Your task to perform on an android device: Search for bose soundlink mini on amazon, select the first entry, add it to the cart, then select checkout. Image 0: 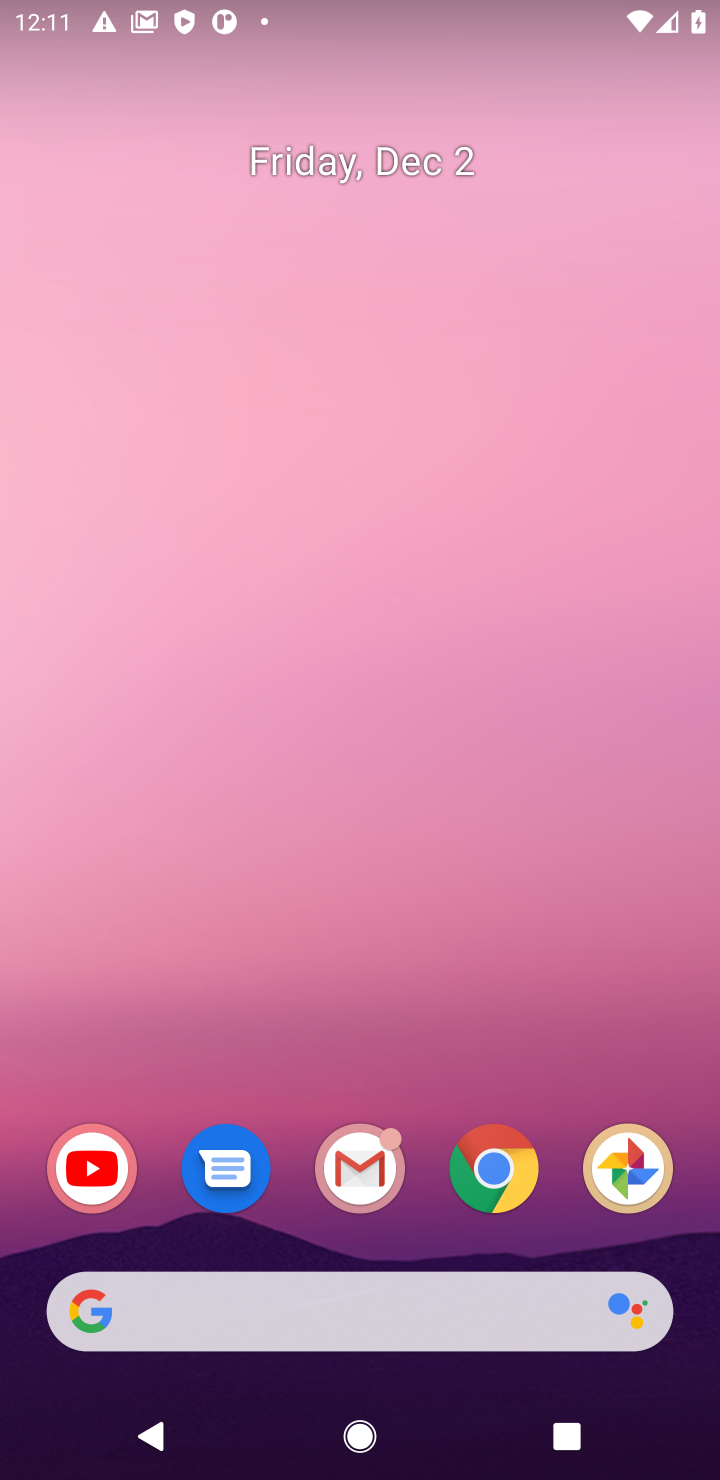
Step 0: click (496, 1177)
Your task to perform on an android device: Search for bose soundlink mini on amazon, select the first entry, add it to the cart, then select checkout. Image 1: 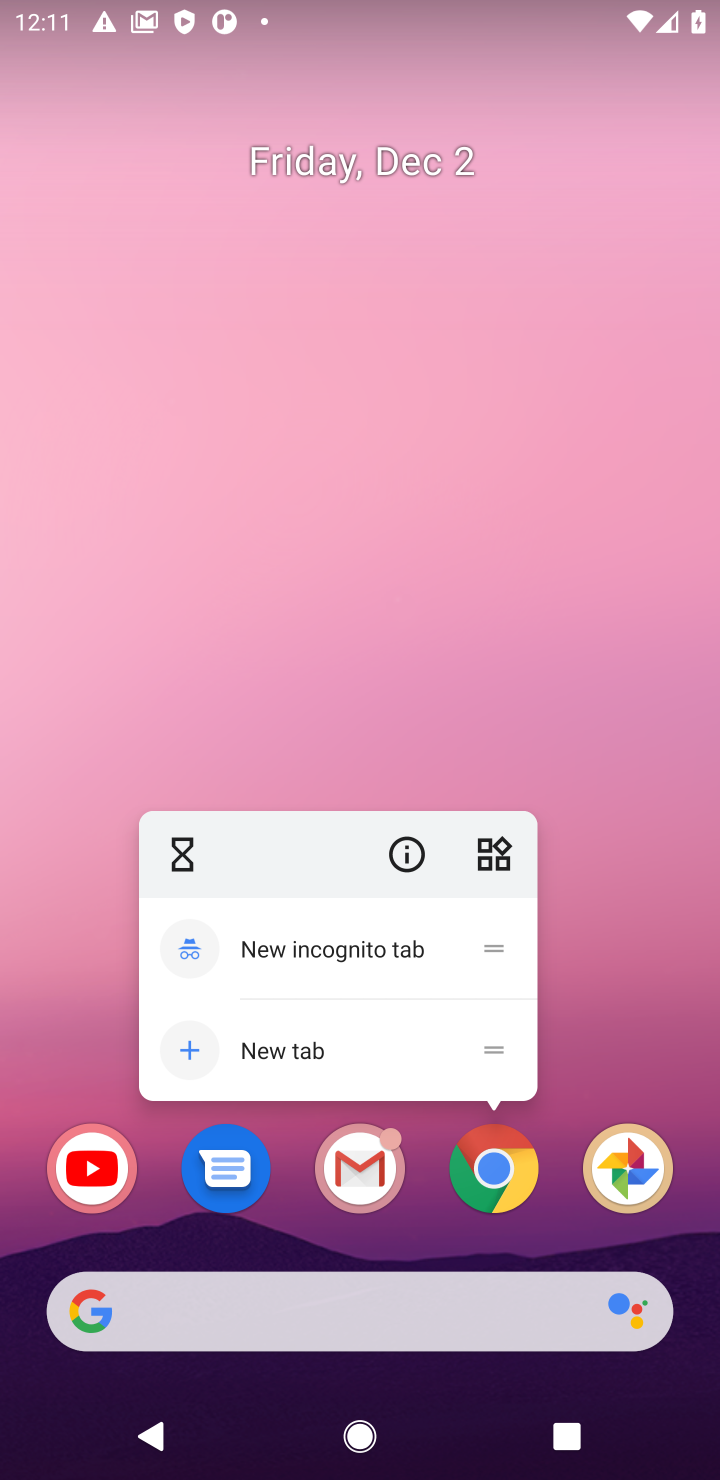
Step 1: click (498, 1179)
Your task to perform on an android device: Search for bose soundlink mini on amazon, select the first entry, add it to the cart, then select checkout. Image 2: 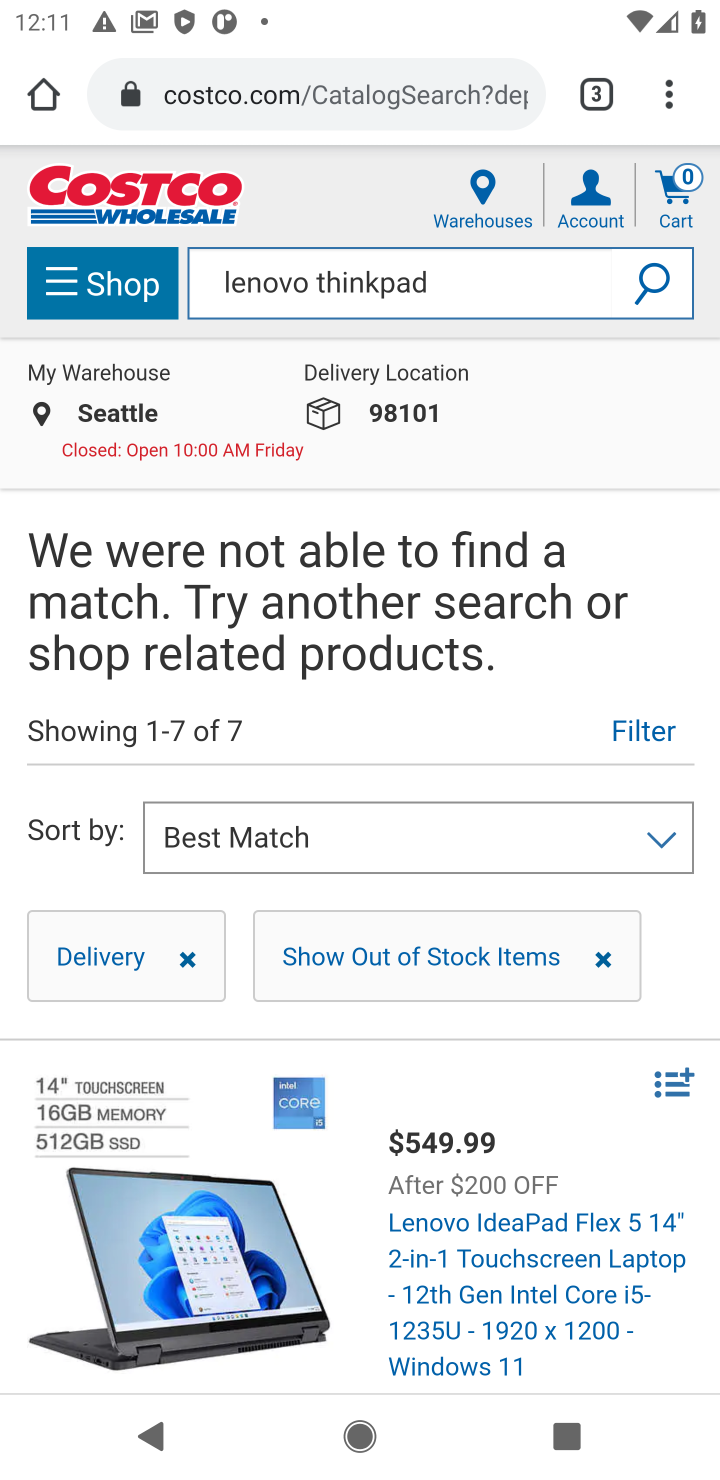
Step 2: click (343, 91)
Your task to perform on an android device: Search for bose soundlink mini on amazon, select the first entry, add it to the cart, then select checkout. Image 3: 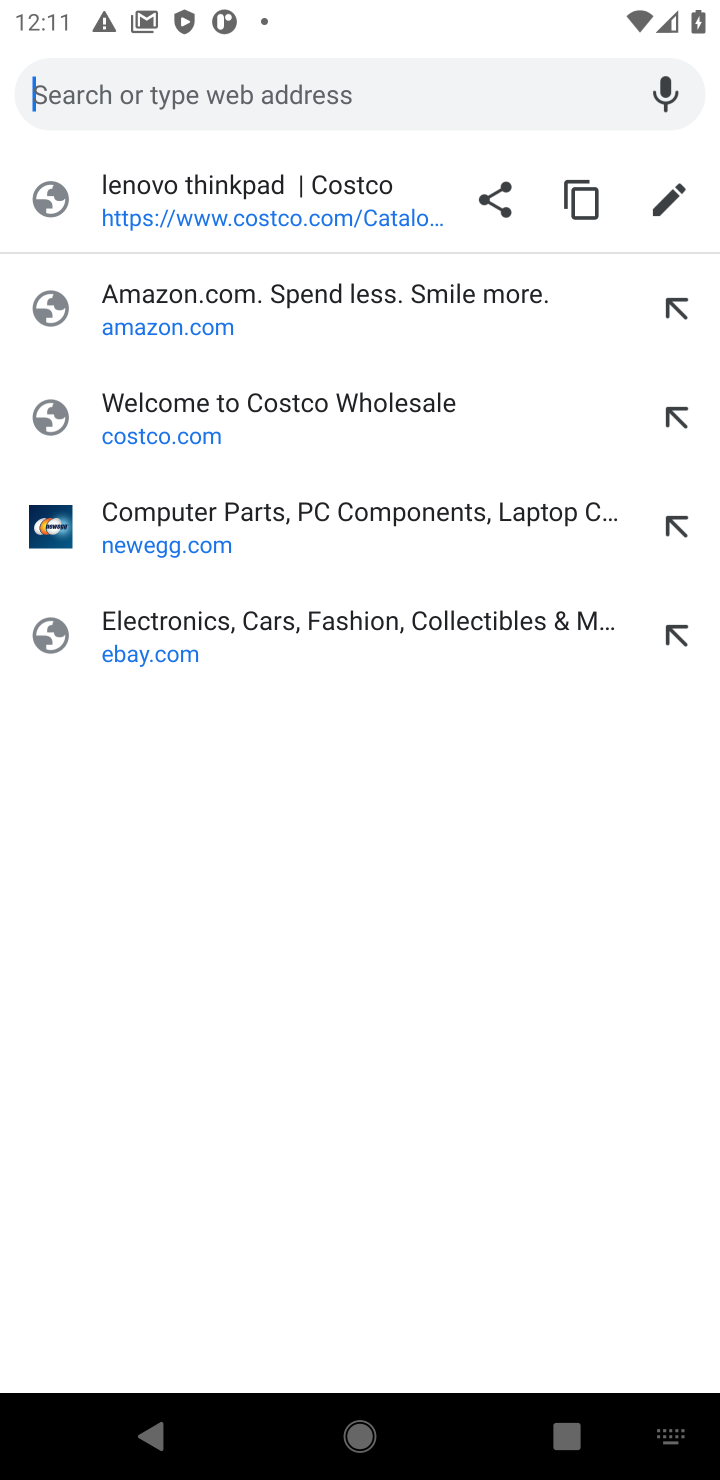
Step 3: click (138, 311)
Your task to perform on an android device: Search for bose soundlink mini on amazon, select the first entry, add it to the cart, then select checkout. Image 4: 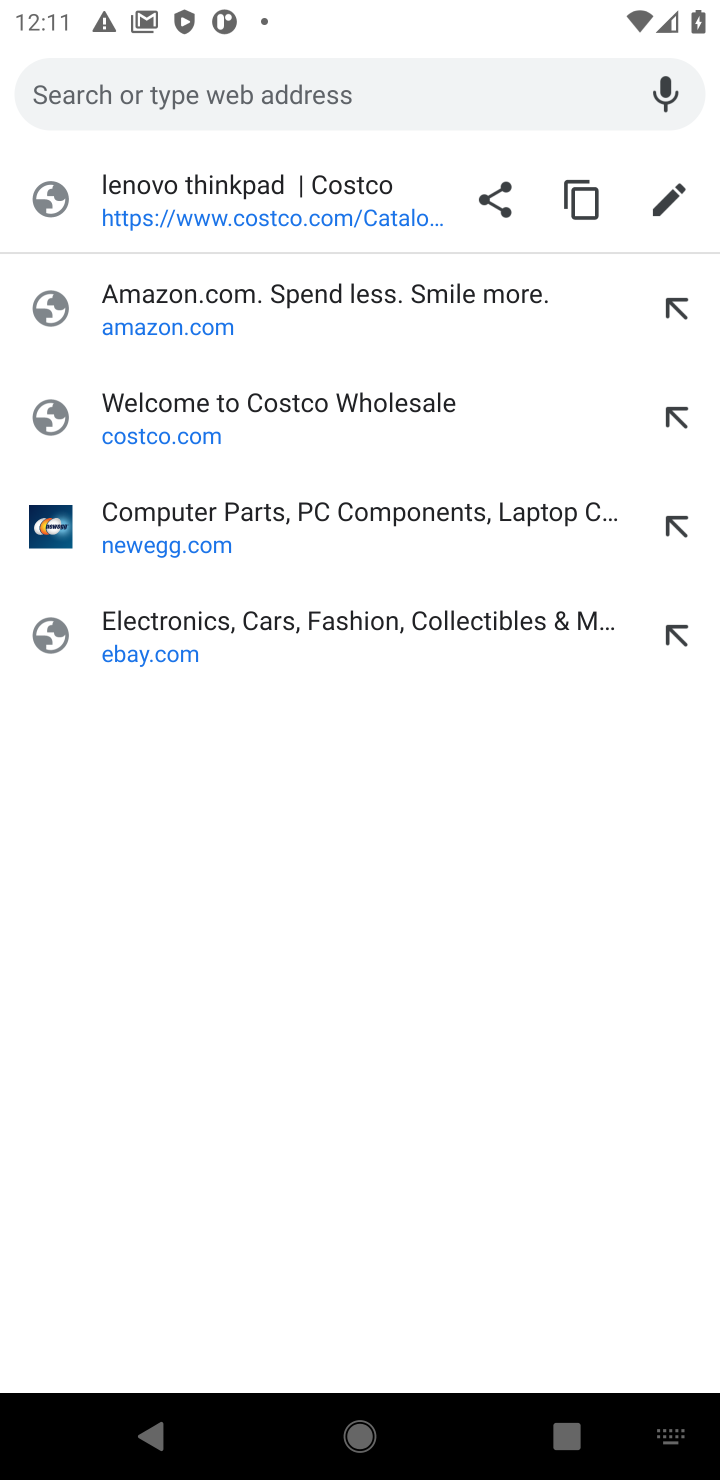
Step 4: click (135, 290)
Your task to perform on an android device: Search for bose soundlink mini on amazon, select the first entry, add it to the cart, then select checkout. Image 5: 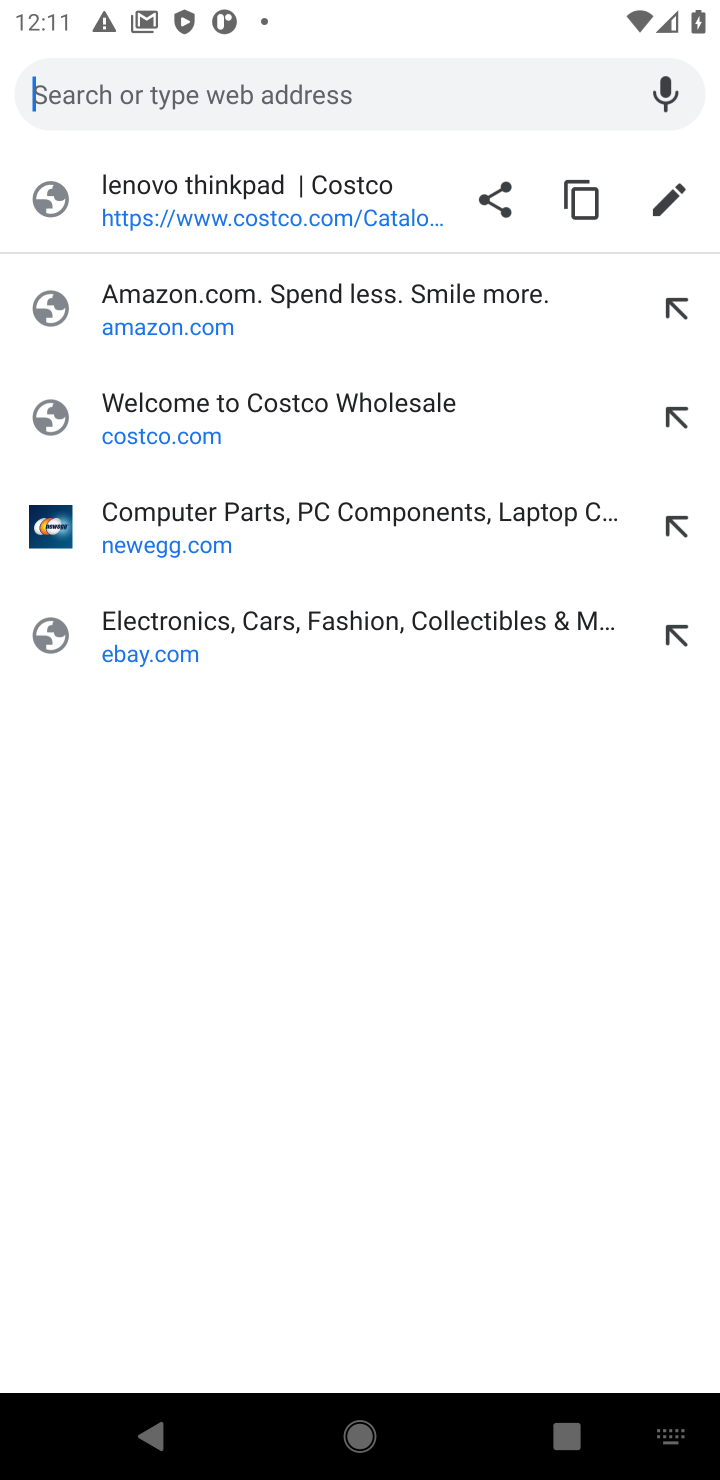
Step 5: click (138, 317)
Your task to perform on an android device: Search for bose soundlink mini on amazon, select the first entry, add it to the cart, then select checkout. Image 6: 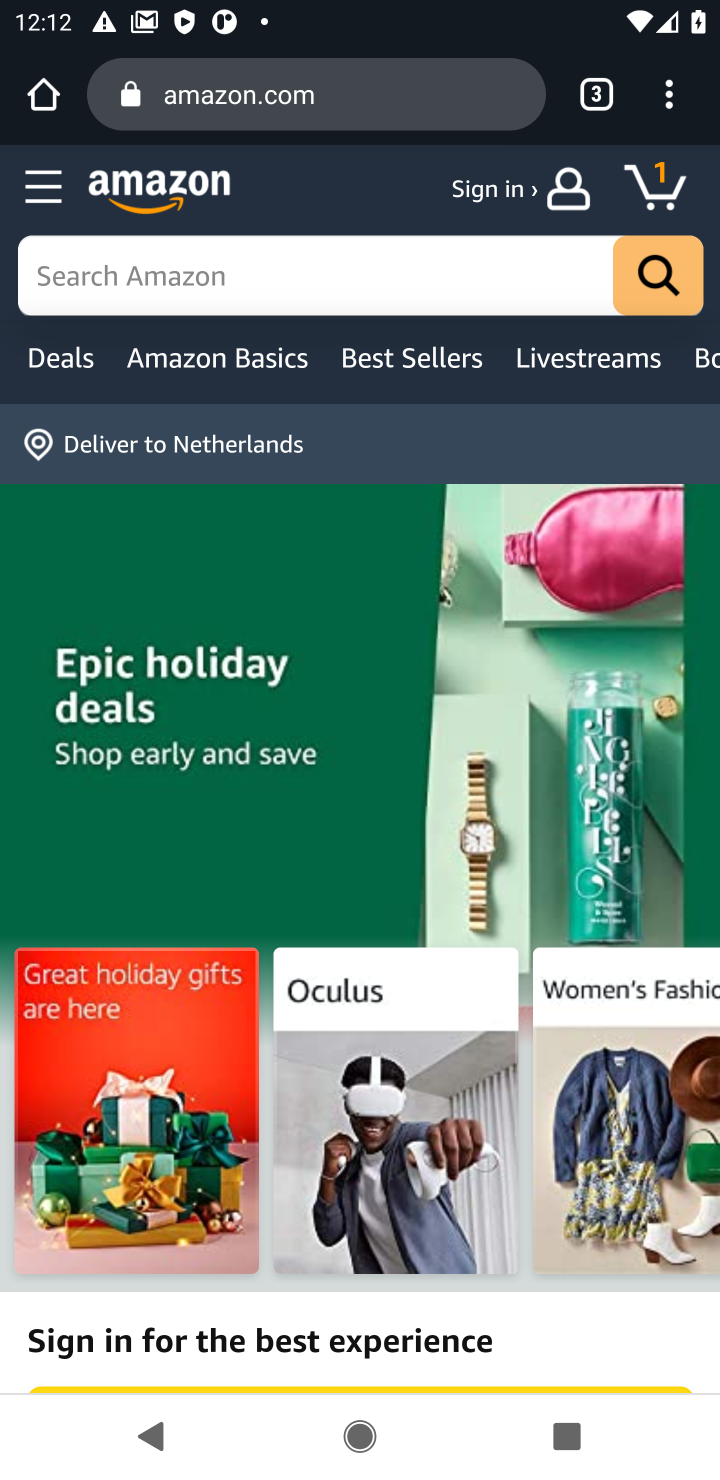
Step 6: click (171, 291)
Your task to perform on an android device: Search for bose soundlink mini on amazon, select the first entry, add it to the cart, then select checkout. Image 7: 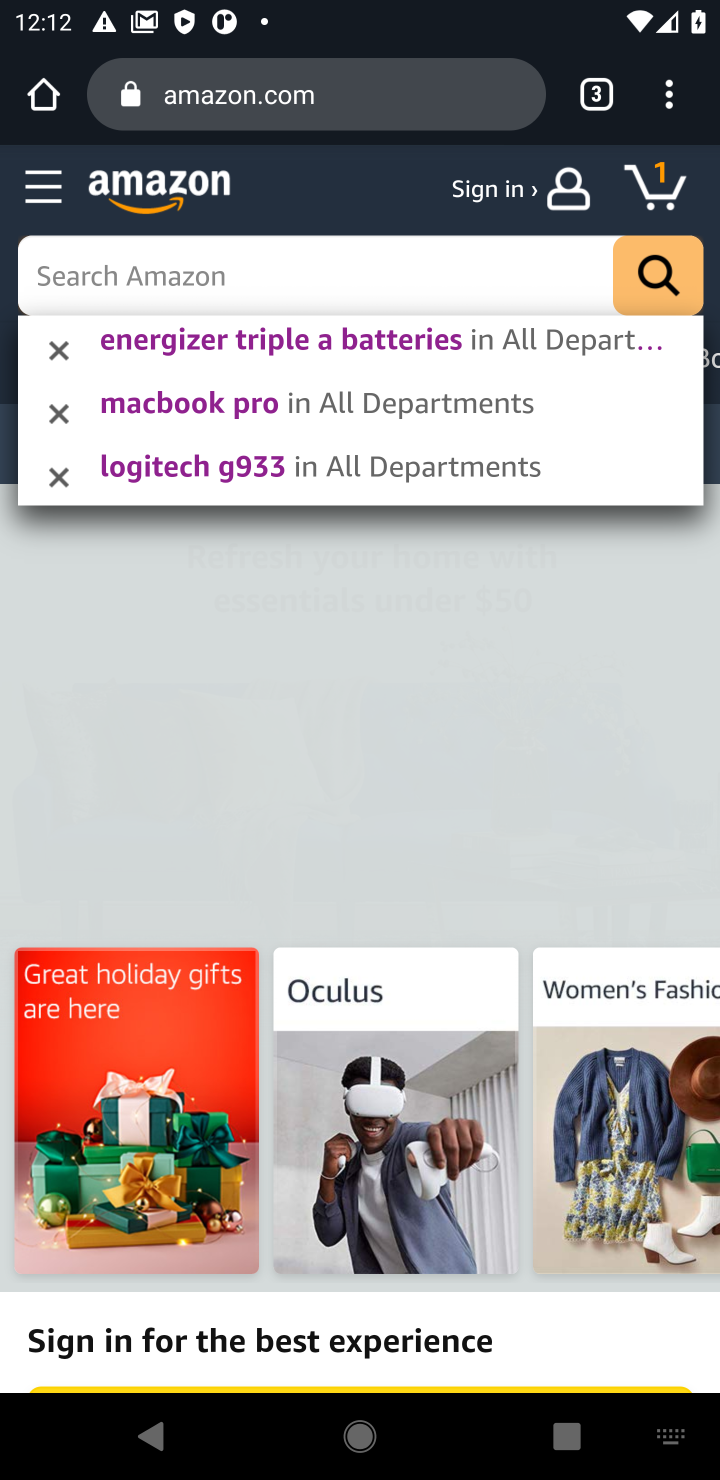
Step 7: type "bose soundlink mini"
Your task to perform on an android device: Search for bose soundlink mini on amazon, select the first entry, add it to the cart, then select checkout. Image 8: 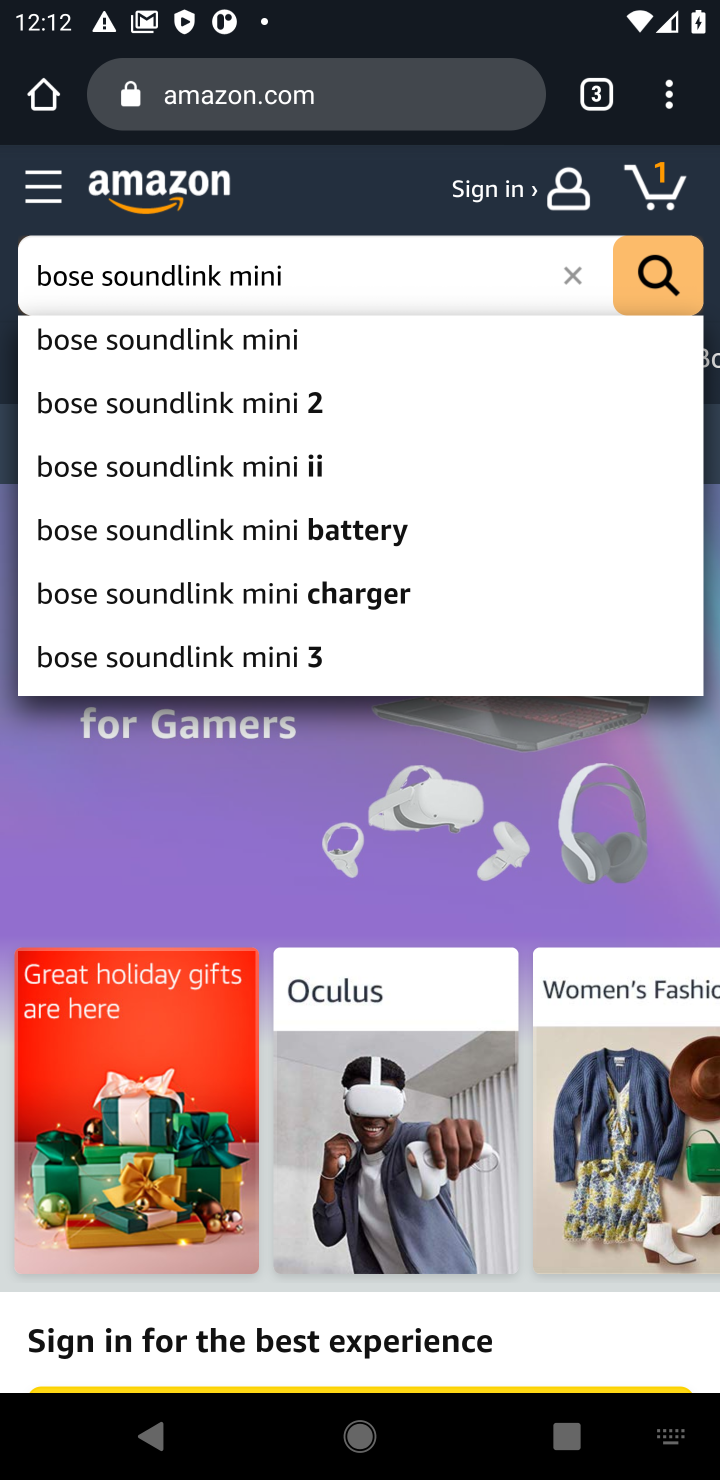
Step 8: click (198, 355)
Your task to perform on an android device: Search for bose soundlink mini on amazon, select the first entry, add it to the cart, then select checkout. Image 9: 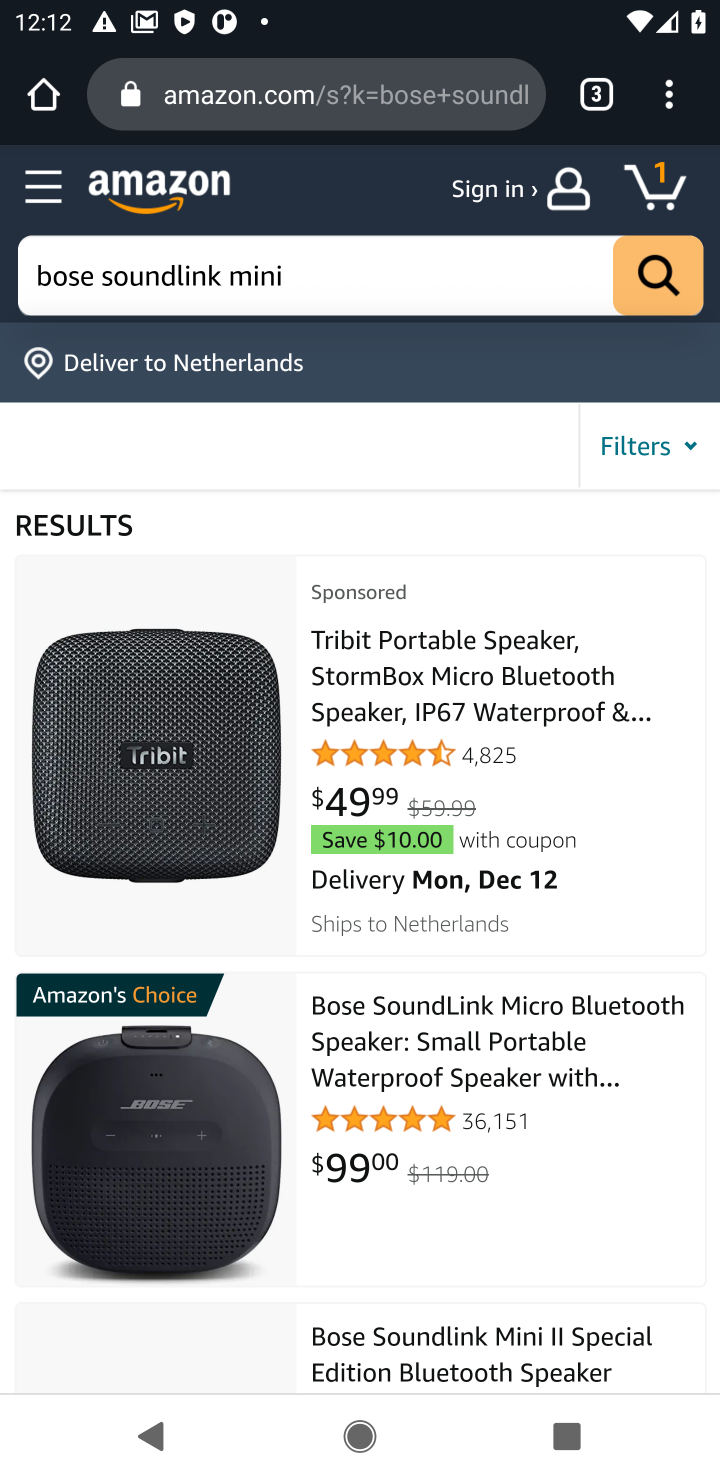
Step 9: task complete